Your task to perform on an android device: Go to Amazon Image 0: 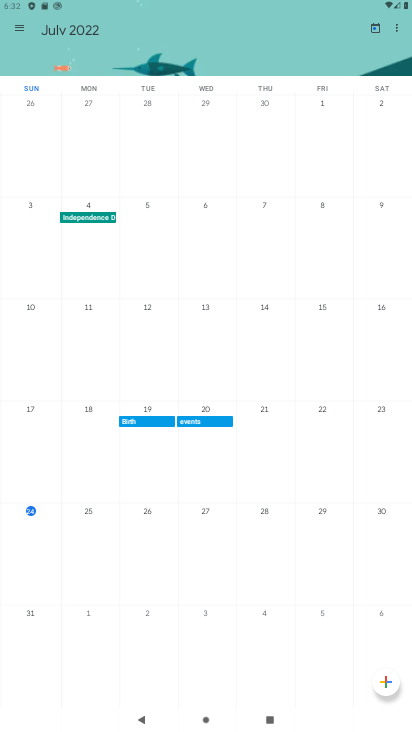
Step 0: drag from (277, 599) to (250, 444)
Your task to perform on an android device: Go to Amazon Image 1: 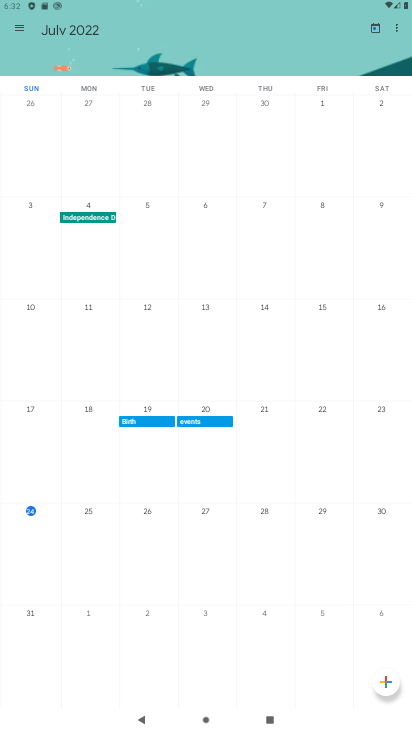
Step 1: press home button
Your task to perform on an android device: Go to Amazon Image 2: 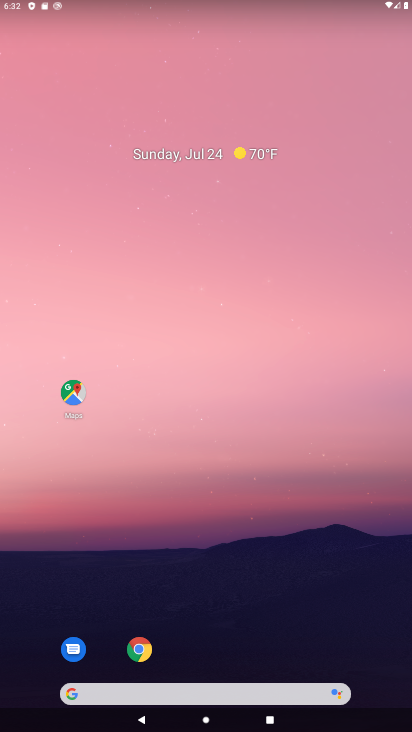
Step 2: click (136, 643)
Your task to perform on an android device: Go to Amazon Image 3: 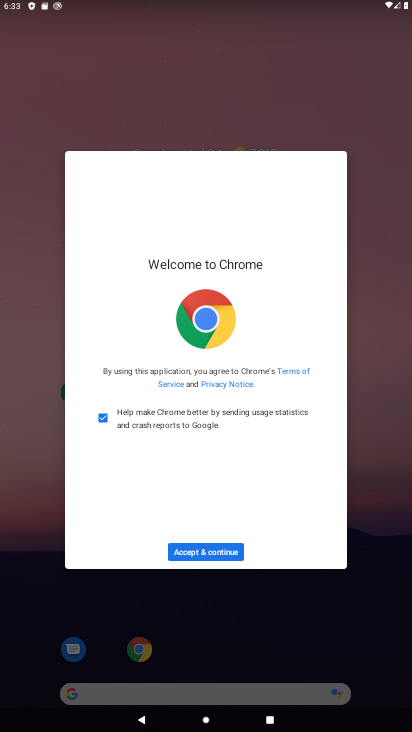
Step 3: click (217, 556)
Your task to perform on an android device: Go to Amazon Image 4: 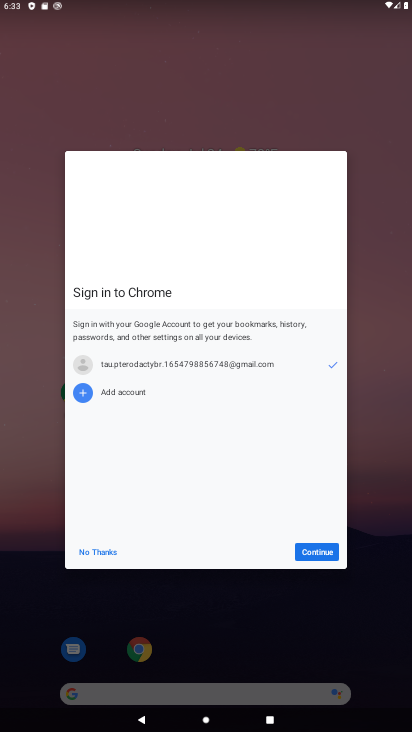
Step 4: click (324, 549)
Your task to perform on an android device: Go to Amazon Image 5: 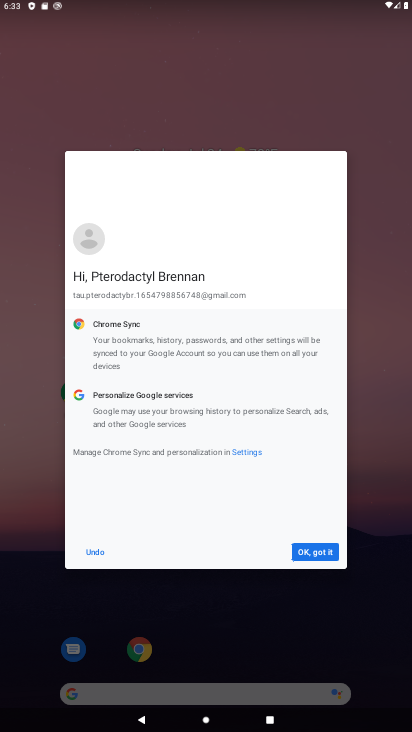
Step 5: click (306, 553)
Your task to perform on an android device: Go to Amazon Image 6: 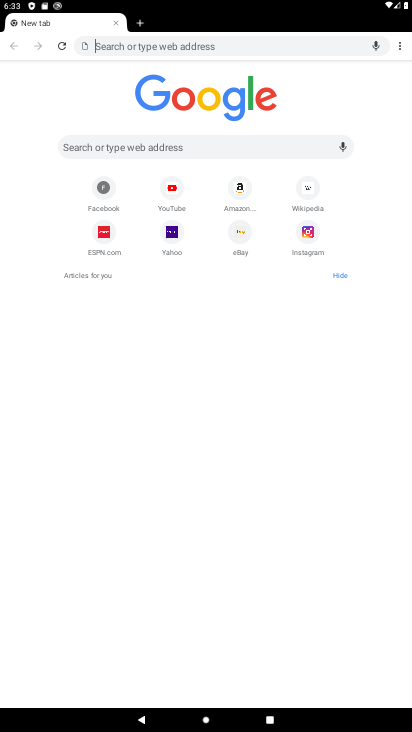
Step 6: click (238, 189)
Your task to perform on an android device: Go to Amazon Image 7: 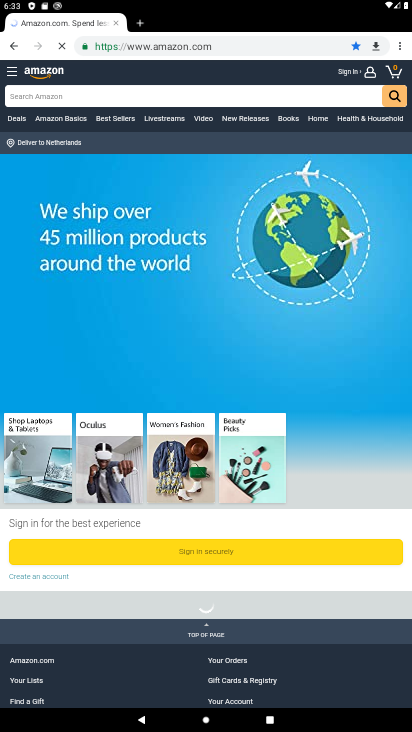
Step 7: task complete